Your task to perform on an android device: Add "alienware area 51" to the cart on costco.com, then select checkout. Image 0: 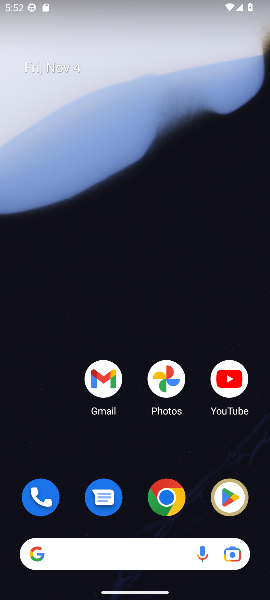
Step 0: click (170, 506)
Your task to perform on an android device: Add "alienware area 51" to the cart on costco.com, then select checkout. Image 1: 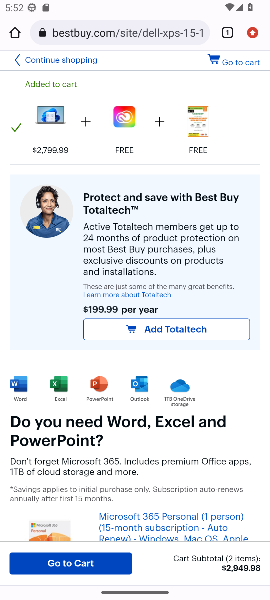
Step 1: click (126, 33)
Your task to perform on an android device: Add "alienware area 51" to the cart on costco.com, then select checkout. Image 2: 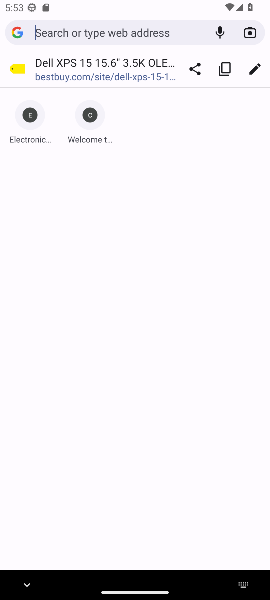
Step 2: type "costco.com"
Your task to perform on an android device: Add "alienware area 51" to the cart on costco.com, then select checkout. Image 3: 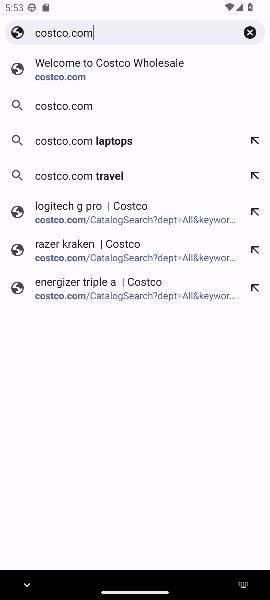
Step 3: click (65, 76)
Your task to perform on an android device: Add "alienware area 51" to the cart on costco.com, then select checkout. Image 4: 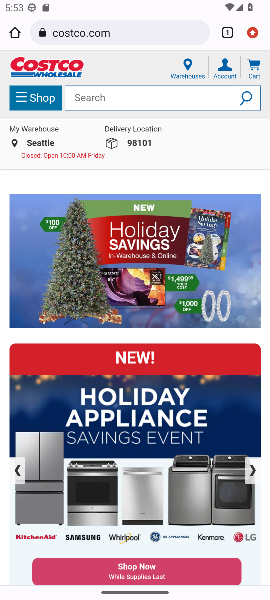
Step 4: click (163, 96)
Your task to perform on an android device: Add "alienware area 51" to the cart on costco.com, then select checkout. Image 5: 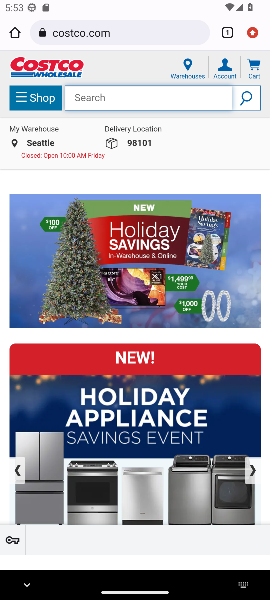
Step 5: type "alienware area 51"
Your task to perform on an android device: Add "alienware area 51" to the cart on costco.com, then select checkout. Image 6: 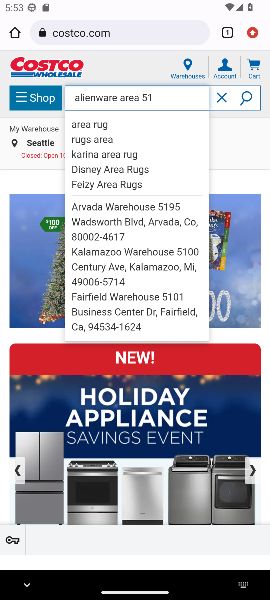
Step 6: click (243, 97)
Your task to perform on an android device: Add "alienware area 51" to the cart on costco.com, then select checkout. Image 7: 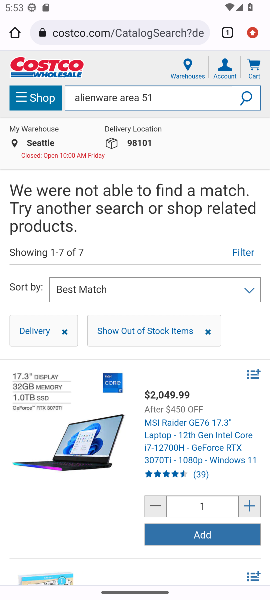
Step 7: task complete